Your task to perform on an android device: turn pop-ups on in chrome Image 0: 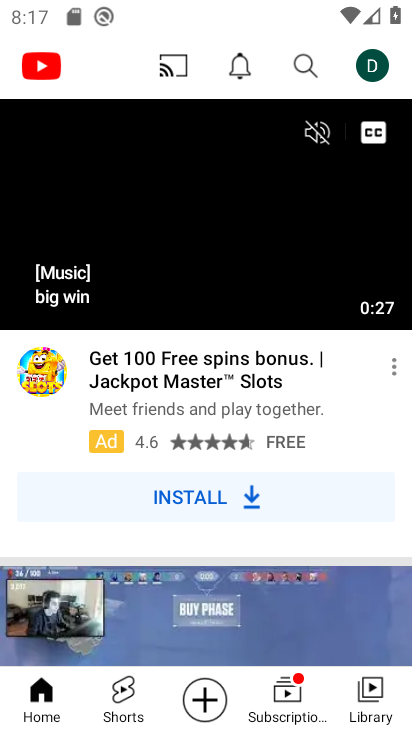
Step 0: press home button
Your task to perform on an android device: turn pop-ups on in chrome Image 1: 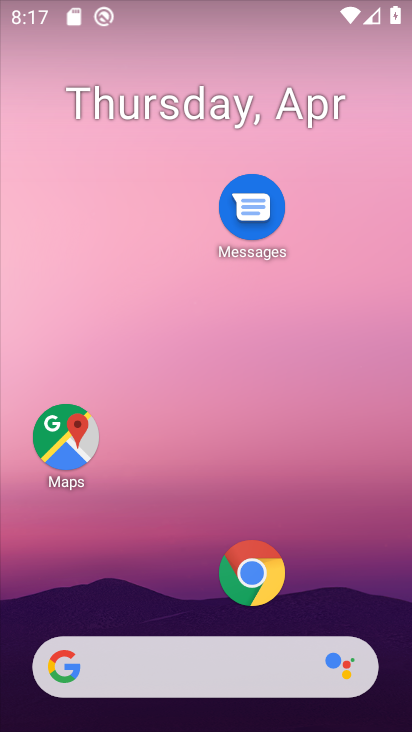
Step 1: click (251, 568)
Your task to perform on an android device: turn pop-ups on in chrome Image 2: 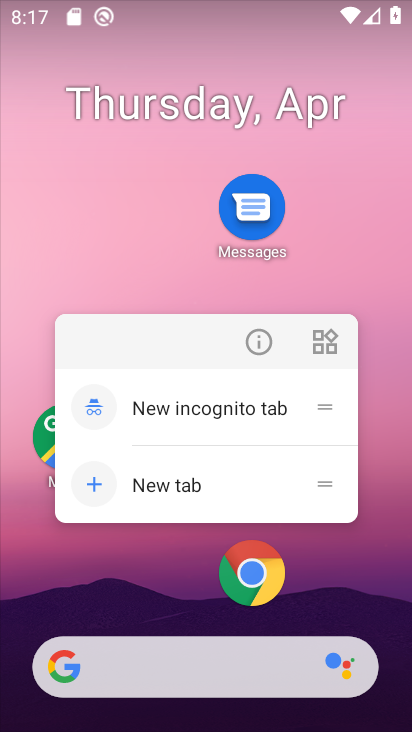
Step 2: click (250, 560)
Your task to perform on an android device: turn pop-ups on in chrome Image 3: 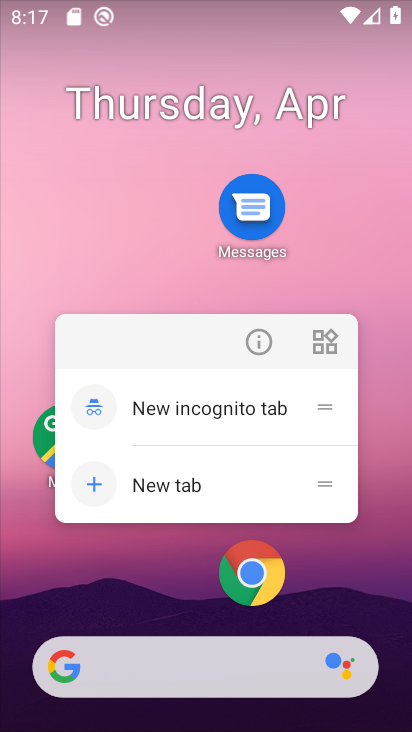
Step 3: click (249, 568)
Your task to perform on an android device: turn pop-ups on in chrome Image 4: 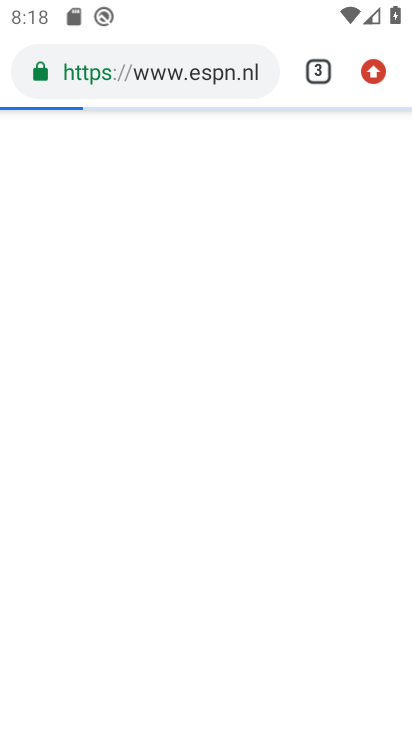
Step 4: click (374, 74)
Your task to perform on an android device: turn pop-ups on in chrome Image 5: 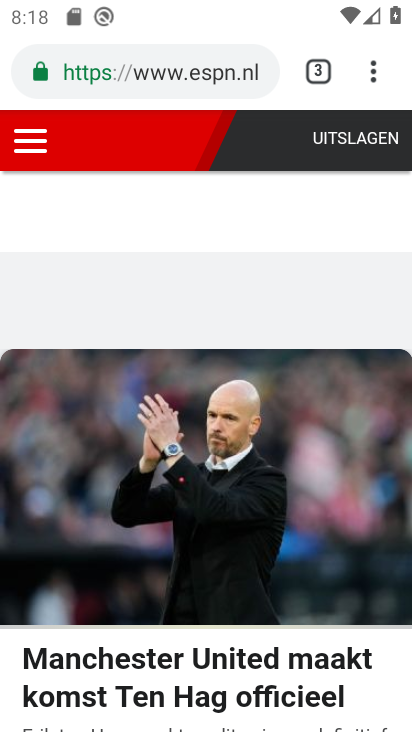
Step 5: click (374, 64)
Your task to perform on an android device: turn pop-ups on in chrome Image 6: 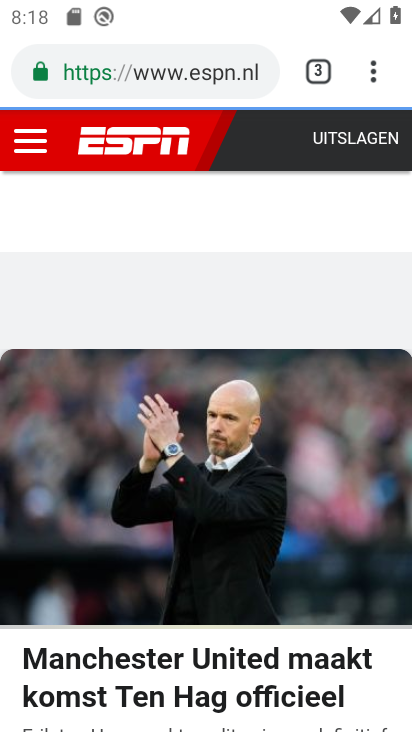
Step 6: click (371, 70)
Your task to perform on an android device: turn pop-ups on in chrome Image 7: 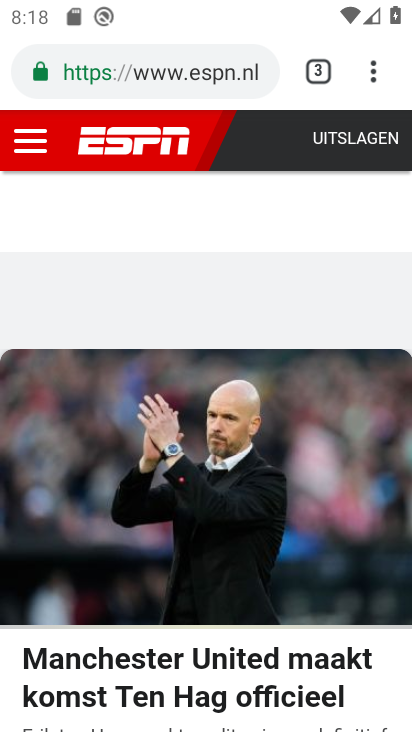
Step 7: click (370, 74)
Your task to perform on an android device: turn pop-ups on in chrome Image 8: 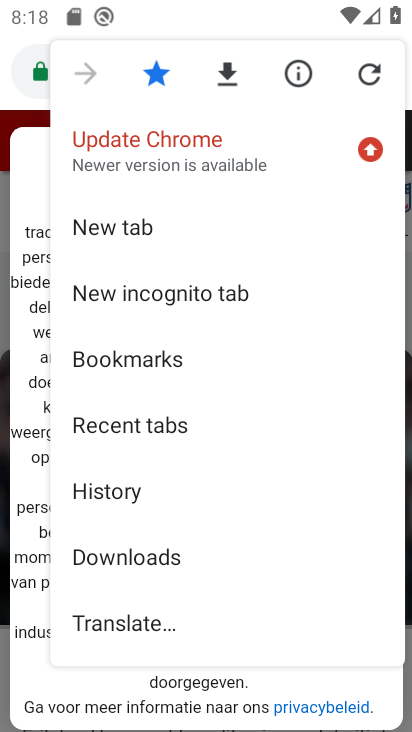
Step 8: drag from (199, 597) to (235, 159)
Your task to perform on an android device: turn pop-ups on in chrome Image 9: 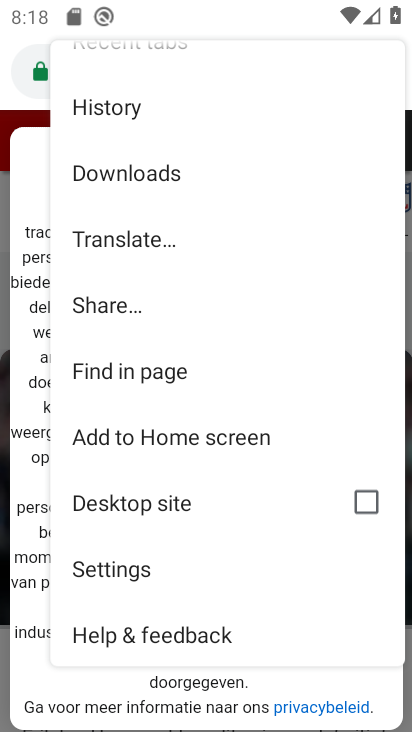
Step 9: click (162, 567)
Your task to perform on an android device: turn pop-ups on in chrome Image 10: 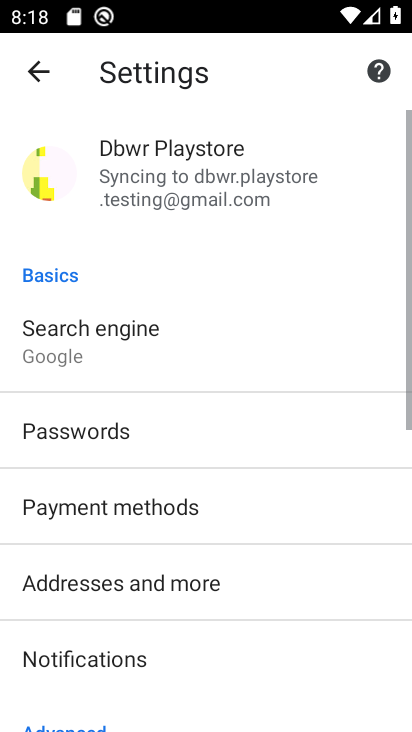
Step 10: drag from (212, 658) to (248, 208)
Your task to perform on an android device: turn pop-ups on in chrome Image 11: 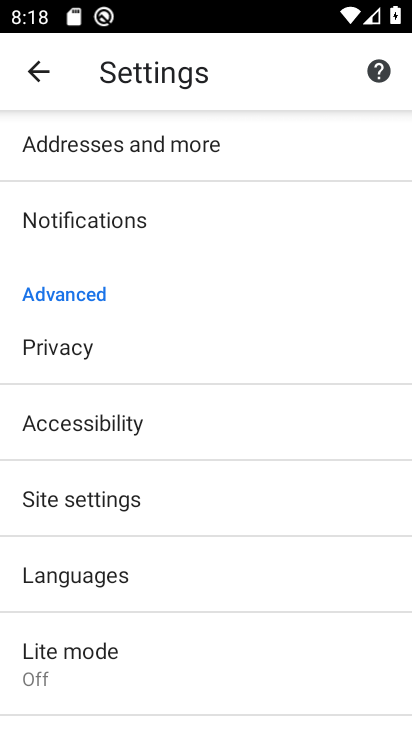
Step 11: click (158, 495)
Your task to perform on an android device: turn pop-ups on in chrome Image 12: 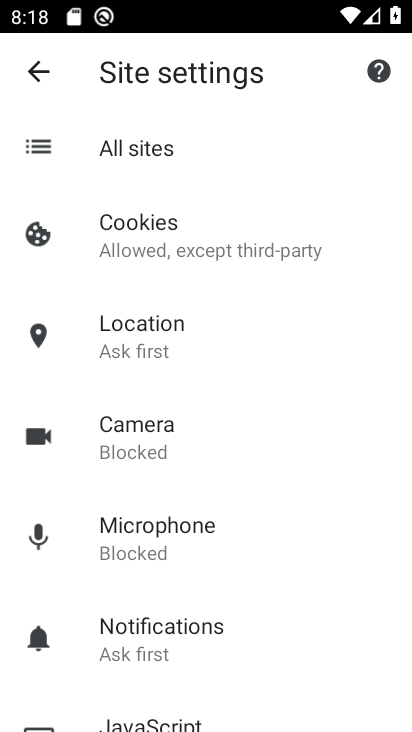
Step 12: drag from (223, 677) to (244, 137)
Your task to perform on an android device: turn pop-ups on in chrome Image 13: 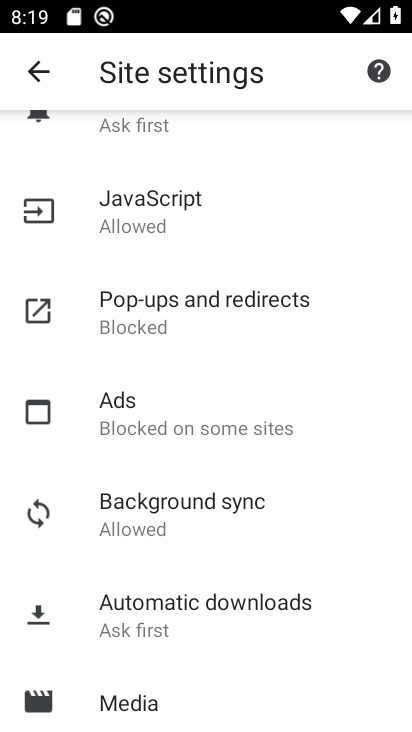
Step 13: click (195, 320)
Your task to perform on an android device: turn pop-ups on in chrome Image 14: 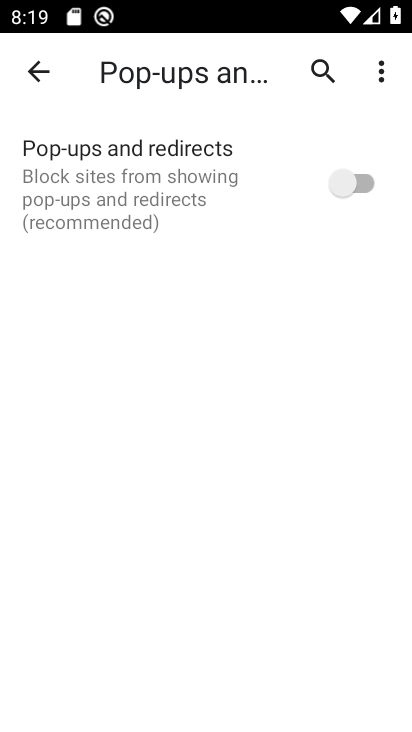
Step 14: click (359, 180)
Your task to perform on an android device: turn pop-ups on in chrome Image 15: 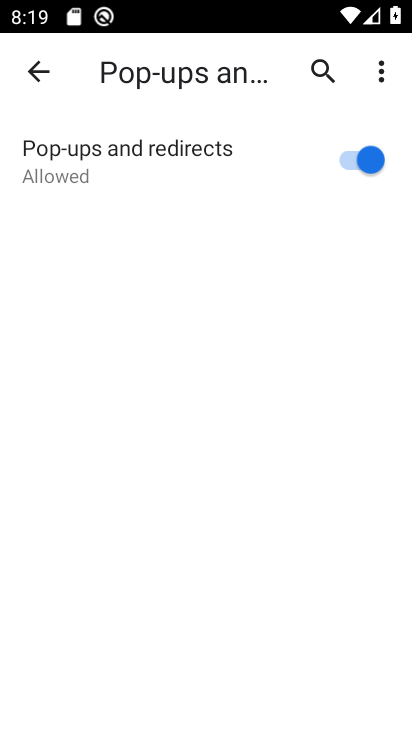
Step 15: task complete